Your task to perform on an android device: turn off javascript in the chrome app Image 0: 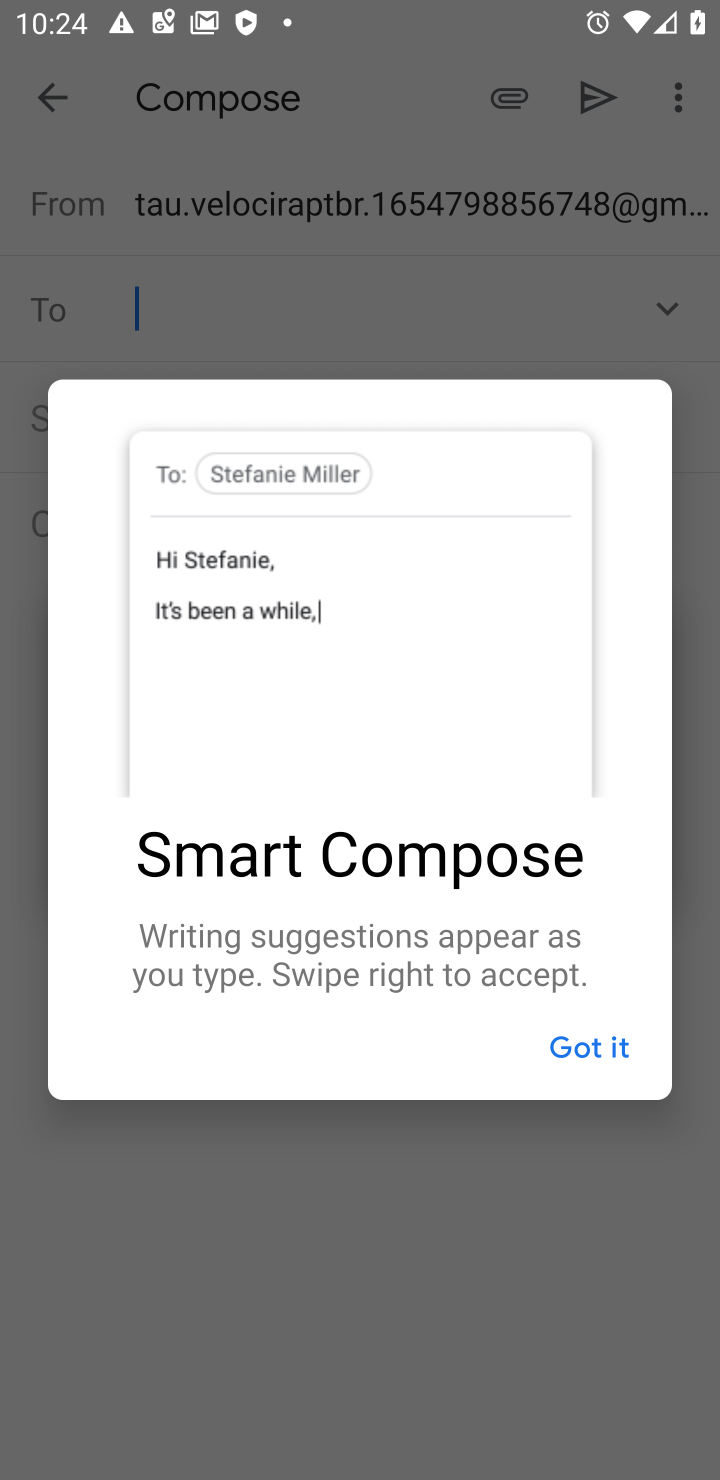
Step 0: press home button
Your task to perform on an android device: turn off javascript in the chrome app Image 1: 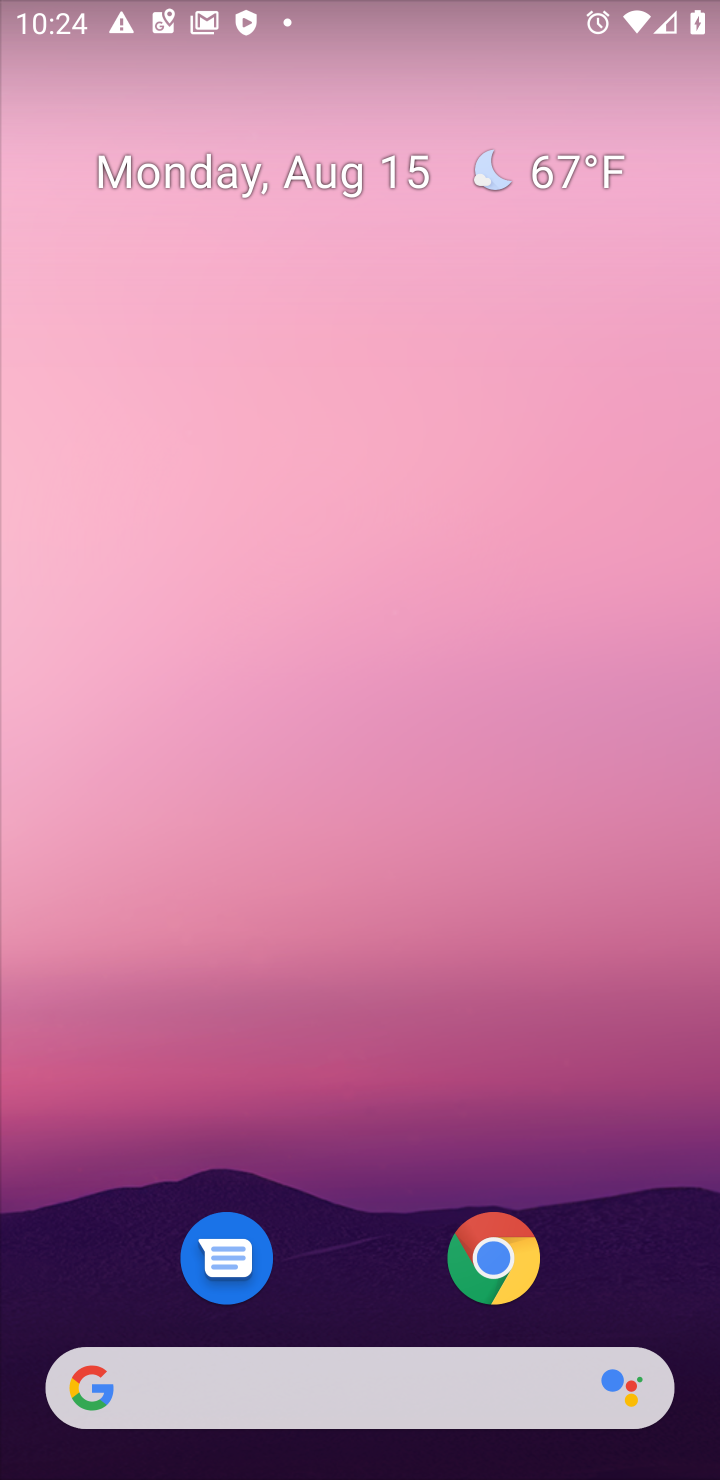
Step 1: drag from (304, 924) to (533, 0)
Your task to perform on an android device: turn off javascript in the chrome app Image 2: 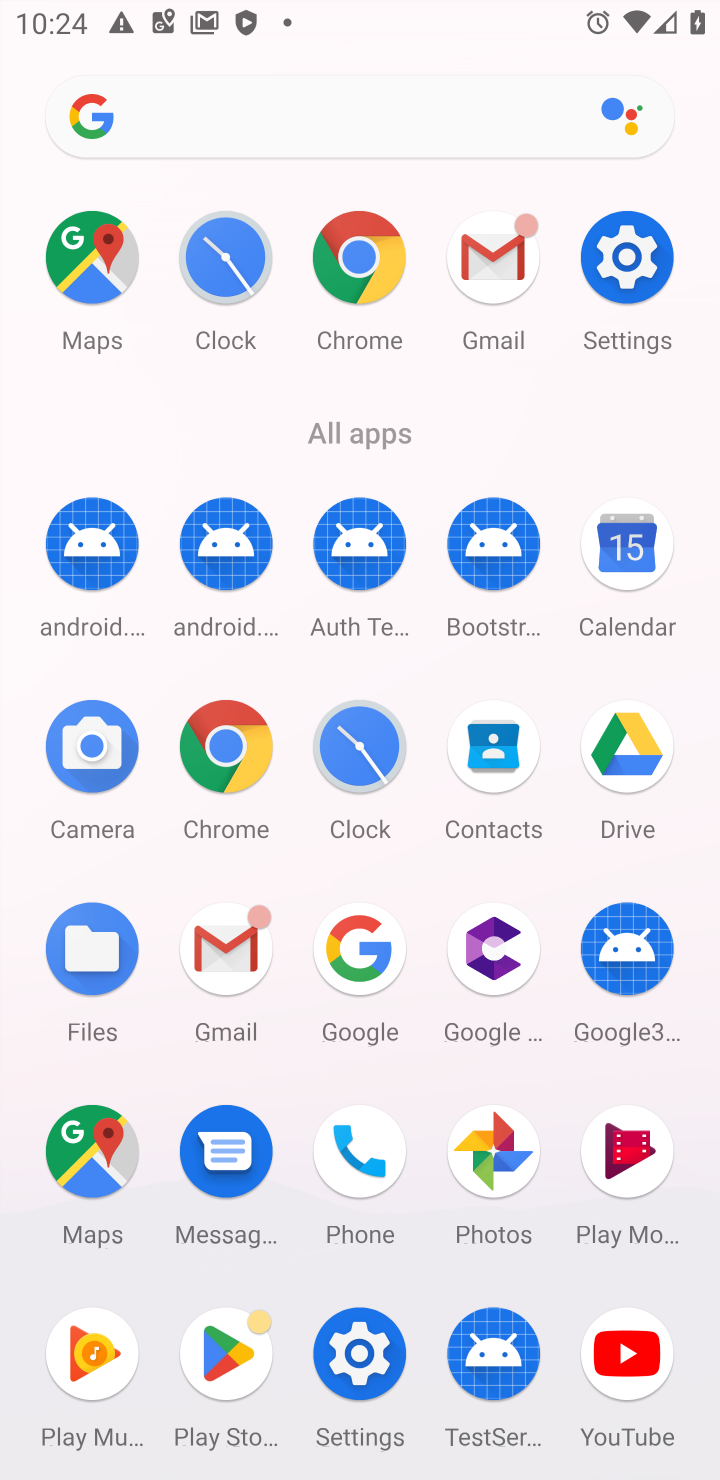
Step 2: click (225, 764)
Your task to perform on an android device: turn off javascript in the chrome app Image 3: 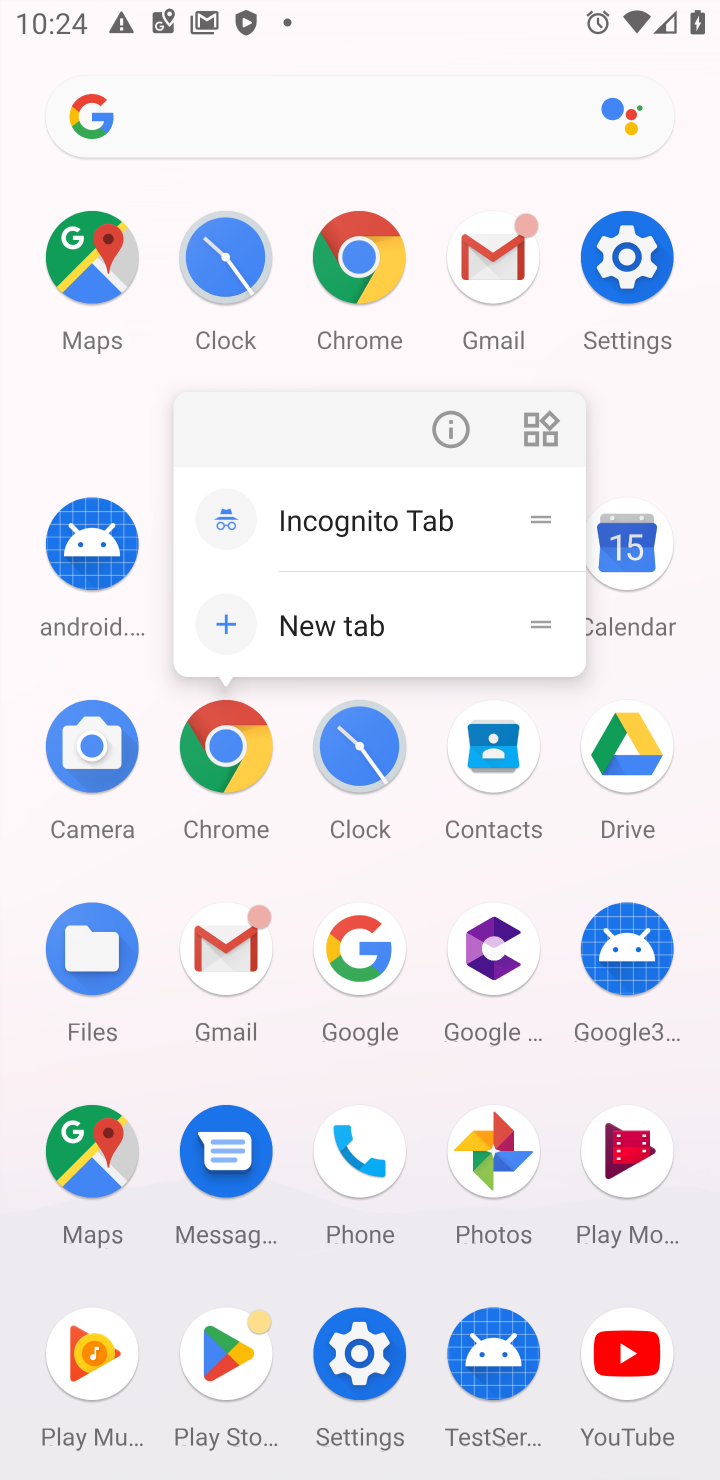
Step 3: click (219, 795)
Your task to perform on an android device: turn off javascript in the chrome app Image 4: 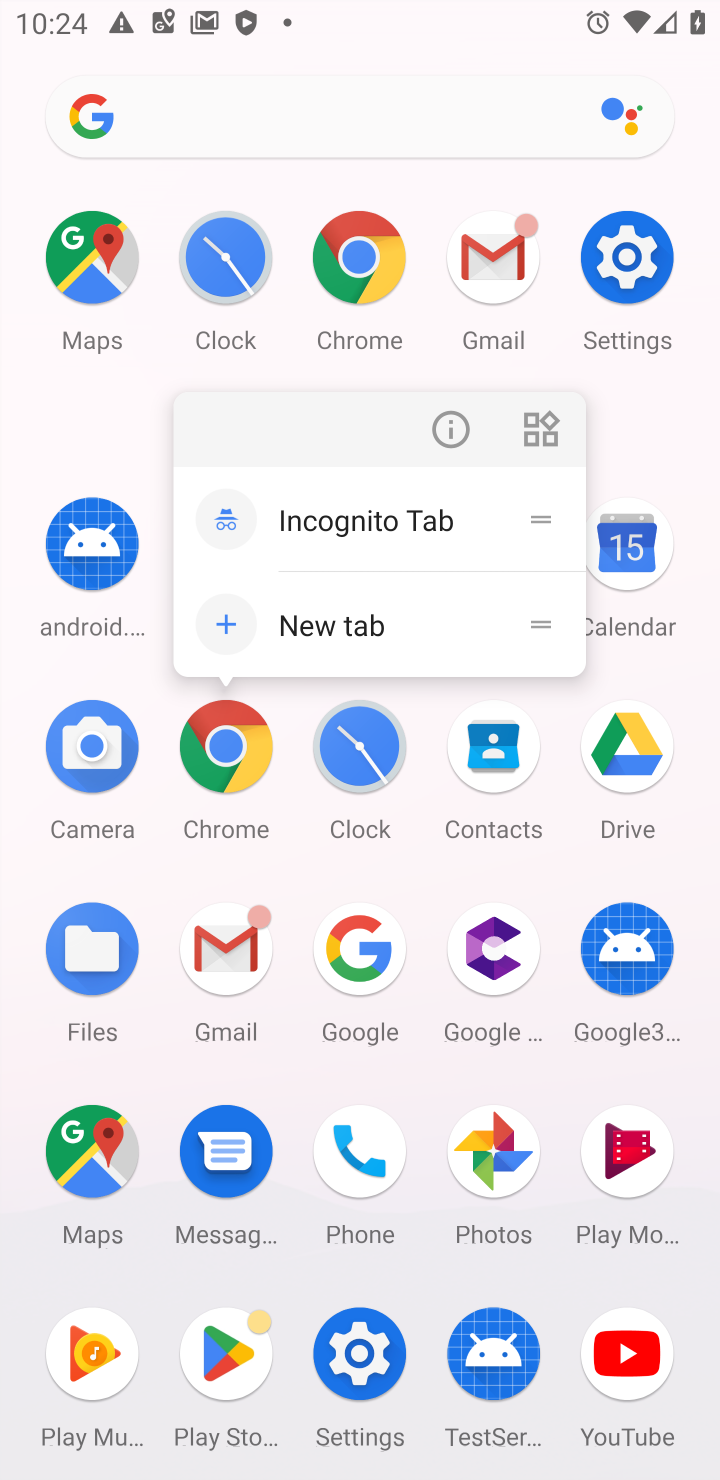
Step 4: click (231, 765)
Your task to perform on an android device: turn off javascript in the chrome app Image 5: 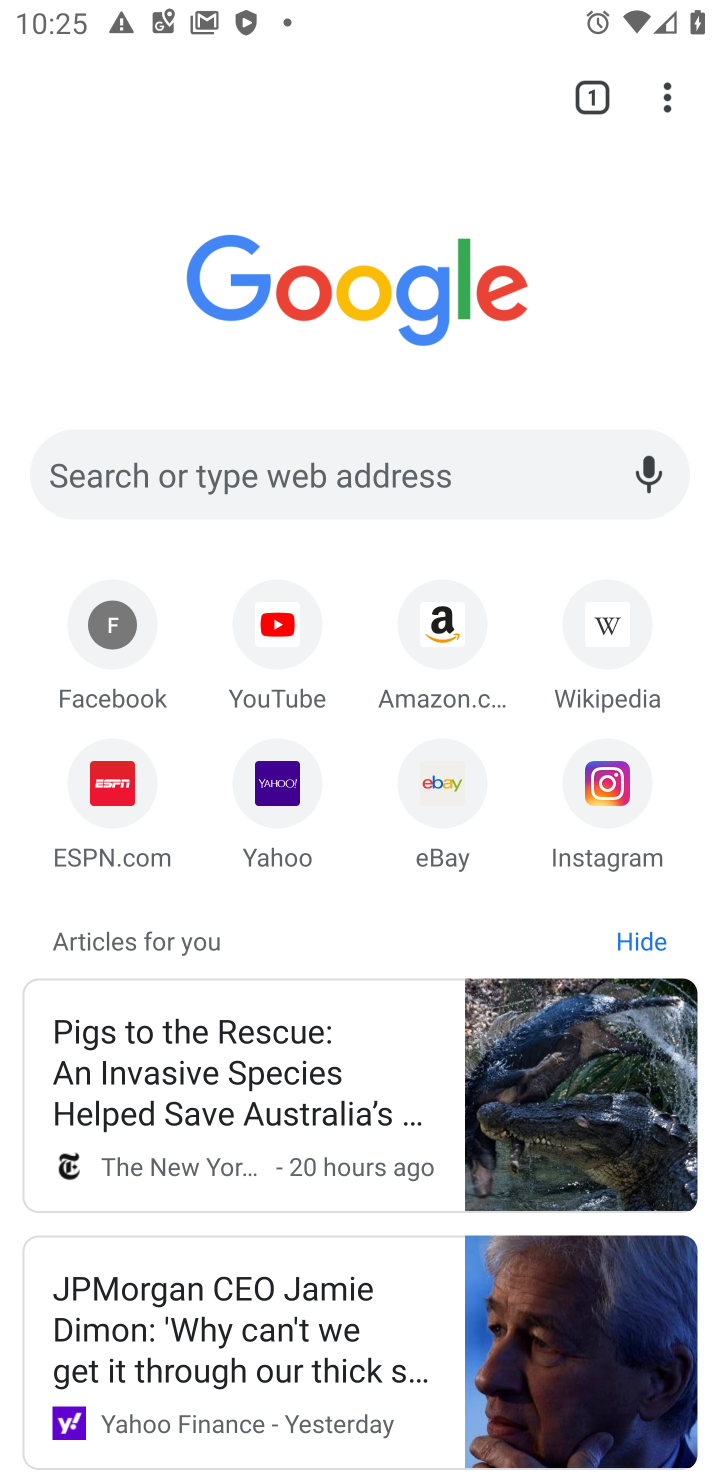
Step 5: click (659, 84)
Your task to perform on an android device: turn off javascript in the chrome app Image 6: 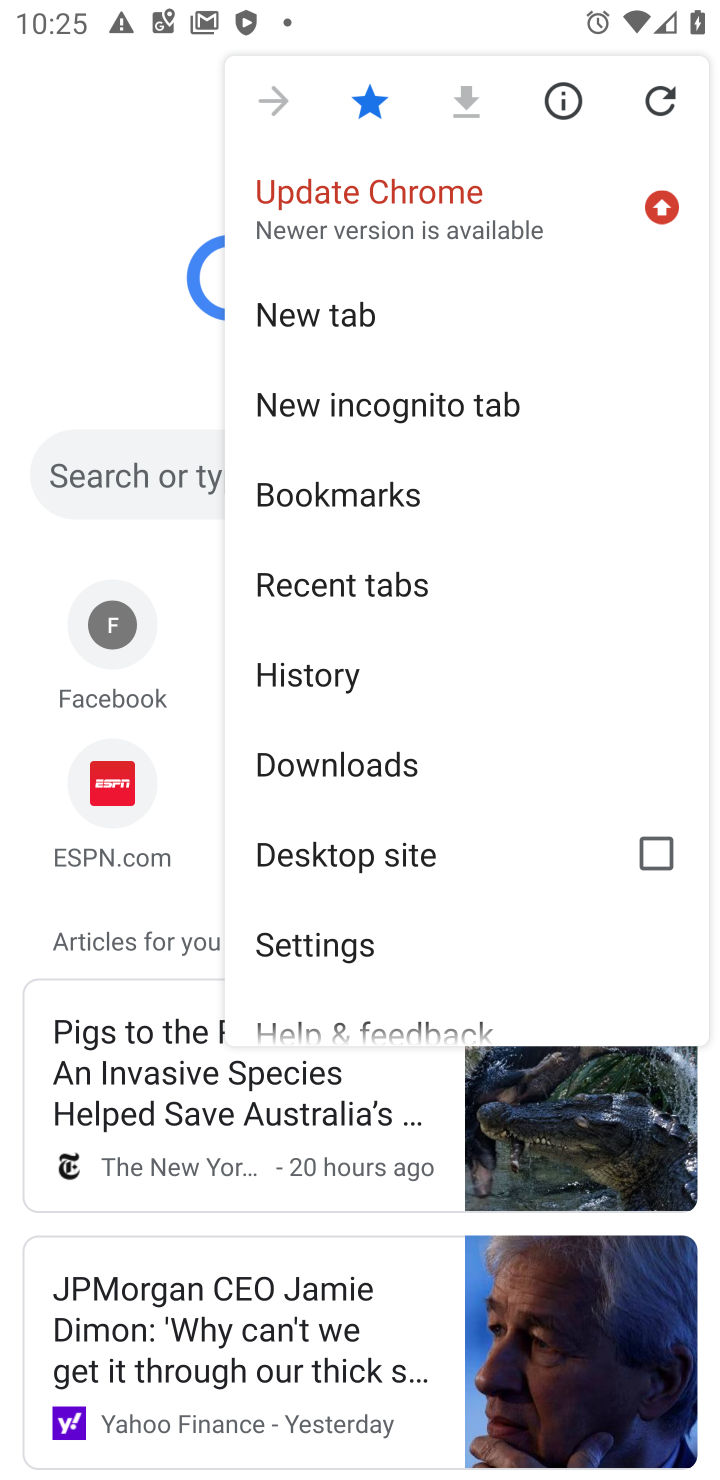
Step 6: click (333, 961)
Your task to perform on an android device: turn off javascript in the chrome app Image 7: 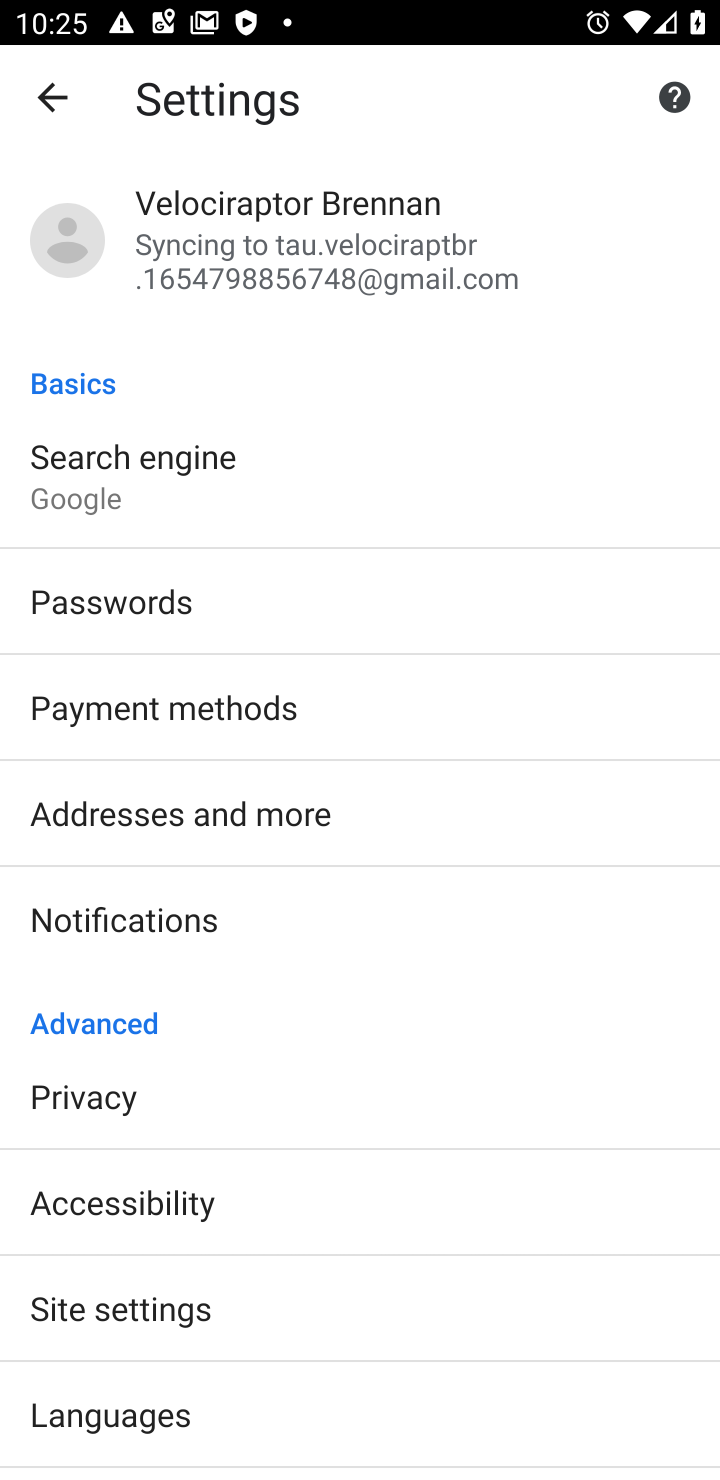
Step 7: click (216, 1309)
Your task to perform on an android device: turn off javascript in the chrome app Image 8: 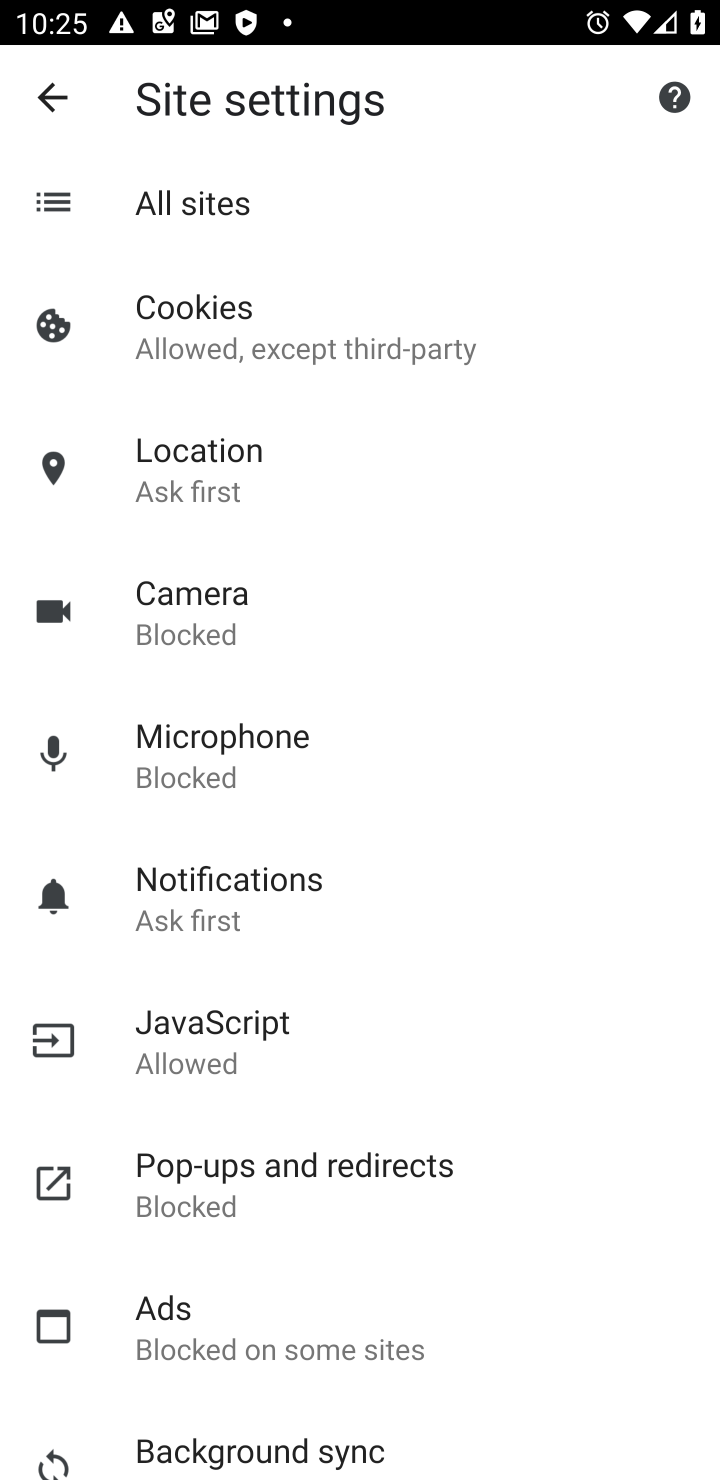
Step 8: click (232, 1044)
Your task to perform on an android device: turn off javascript in the chrome app Image 9: 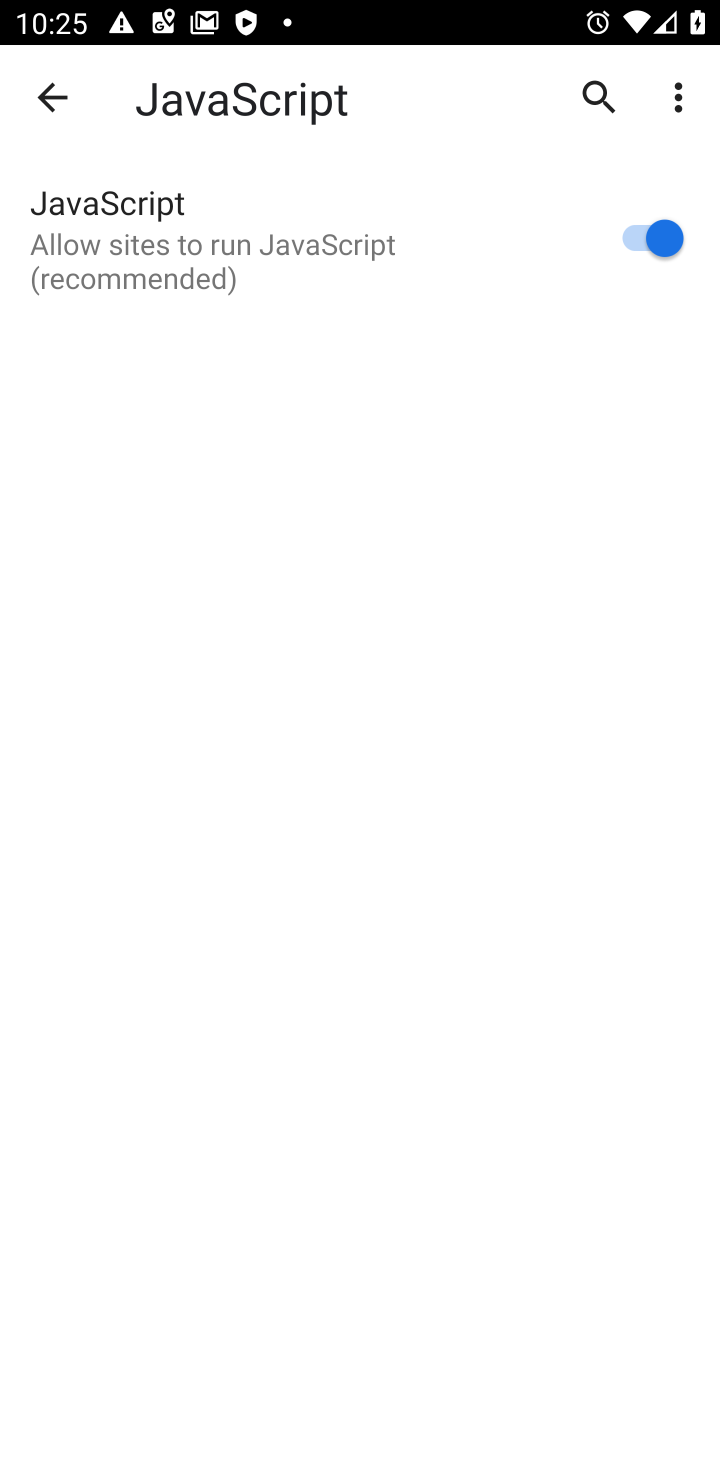
Step 9: click (616, 220)
Your task to perform on an android device: turn off javascript in the chrome app Image 10: 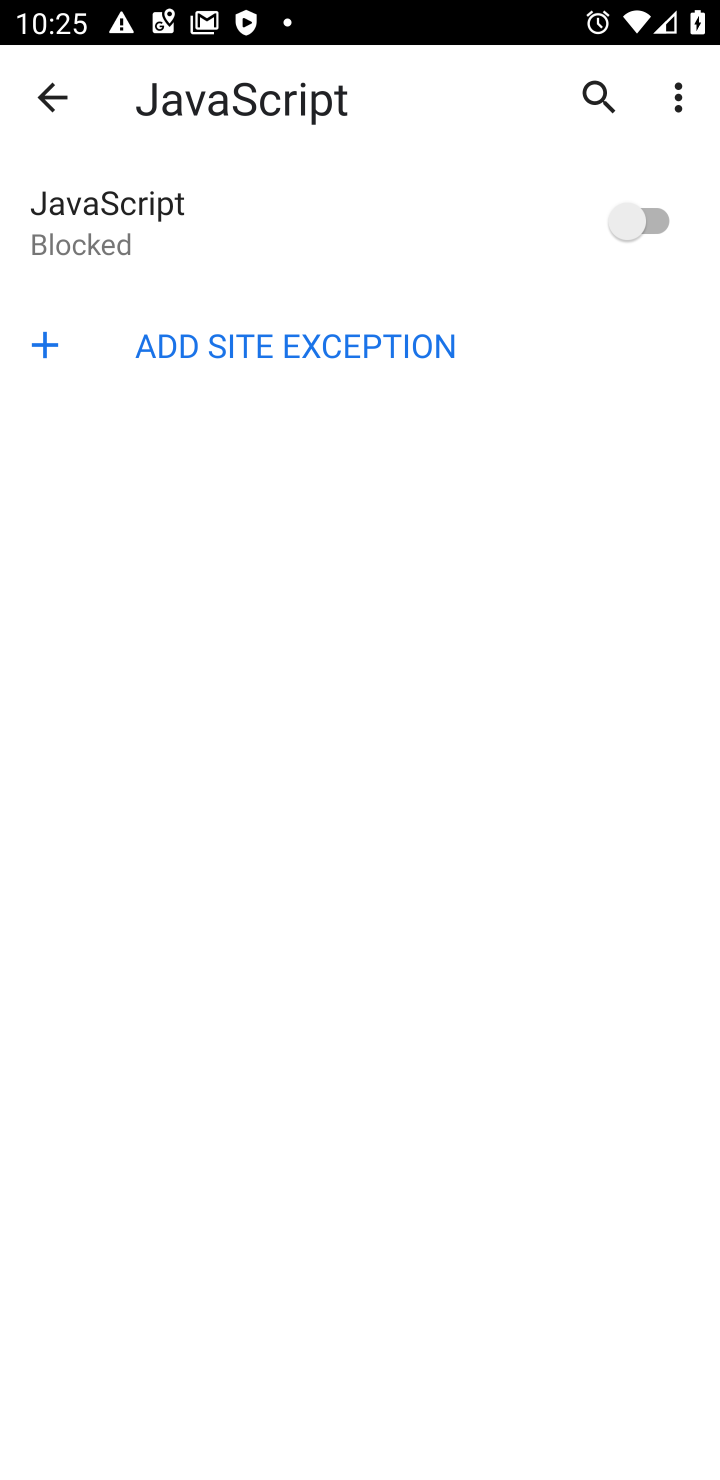
Step 10: task complete